Your task to perform on an android device: Clear the shopping cart on newegg.com. Add "beats solo 3" to the cart on newegg.com, then select checkout. Image 0: 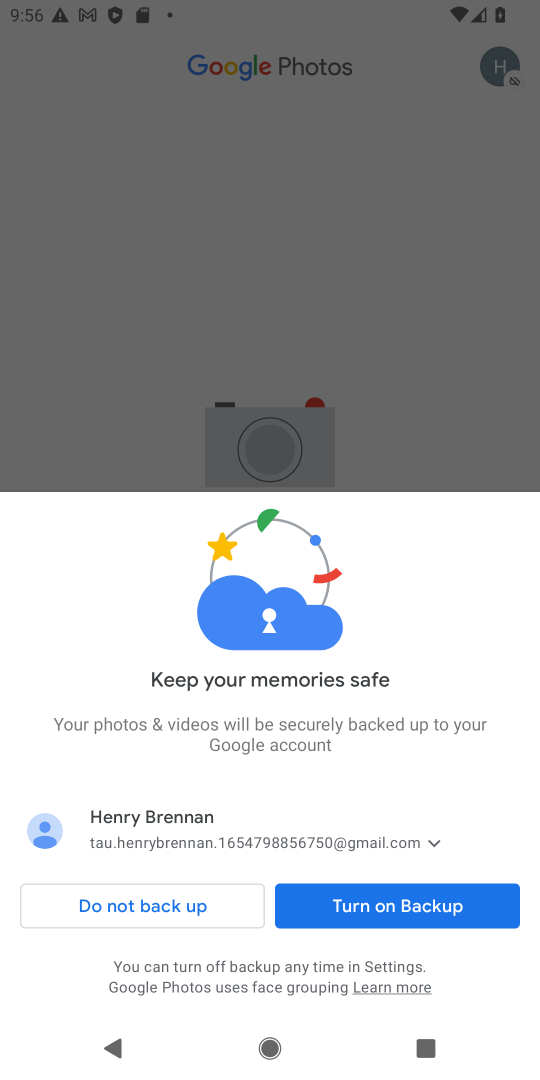
Step 0: press home button
Your task to perform on an android device: Clear the shopping cart on newegg.com. Add "beats solo 3" to the cart on newegg.com, then select checkout. Image 1: 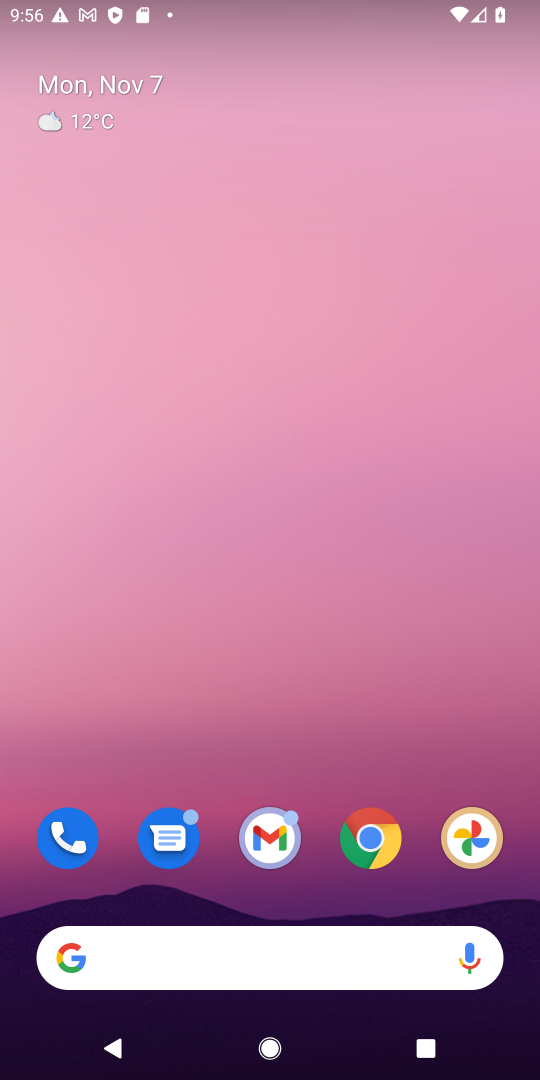
Step 1: click (357, 831)
Your task to perform on an android device: Clear the shopping cart on newegg.com. Add "beats solo 3" to the cart on newegg.com, then select checkout. Image 2: 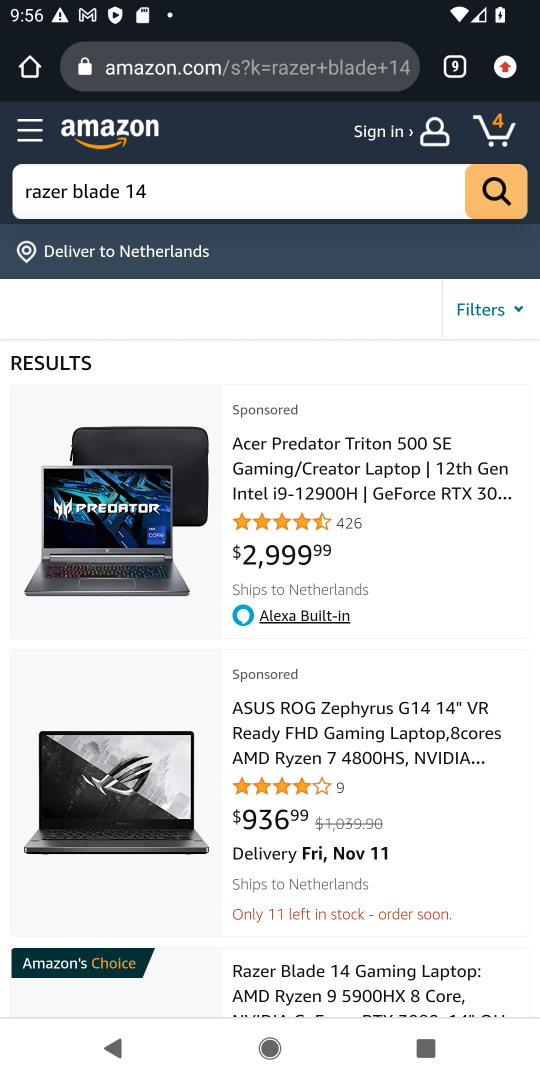
Step 2: click (460, 64)
Your task to perform on an android device: Clear the shopping cart on newegg.com. Add "beats solo 3" to the cart on newegg.com, then select checkout. Image 3: 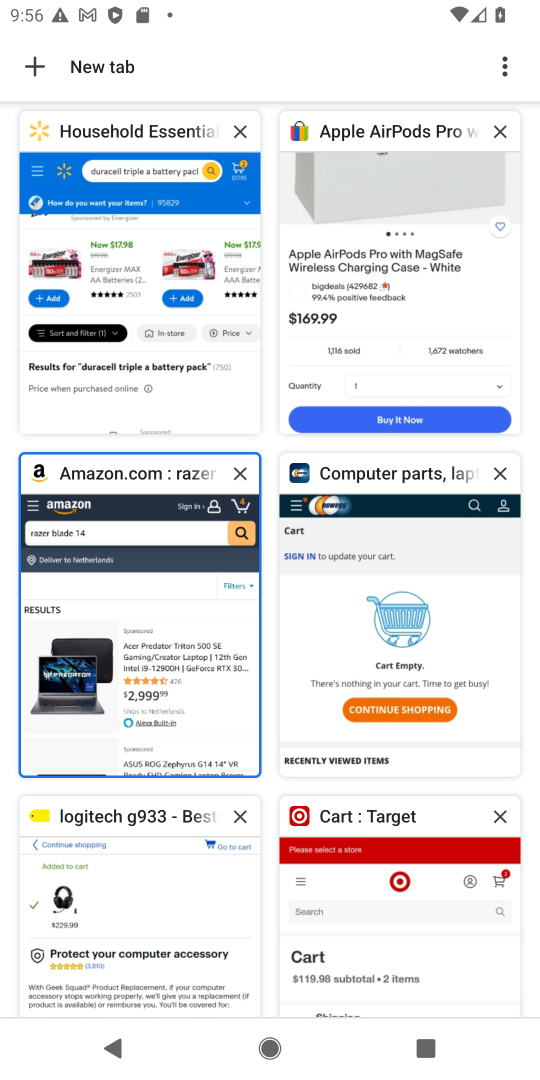
Step 3: click (355, 540)
Your task to perform on an android device: Clear the shopping cart on newegg.com. Add "beats solo 3" to the cart on newegg.com, then select checkout. Image 4: 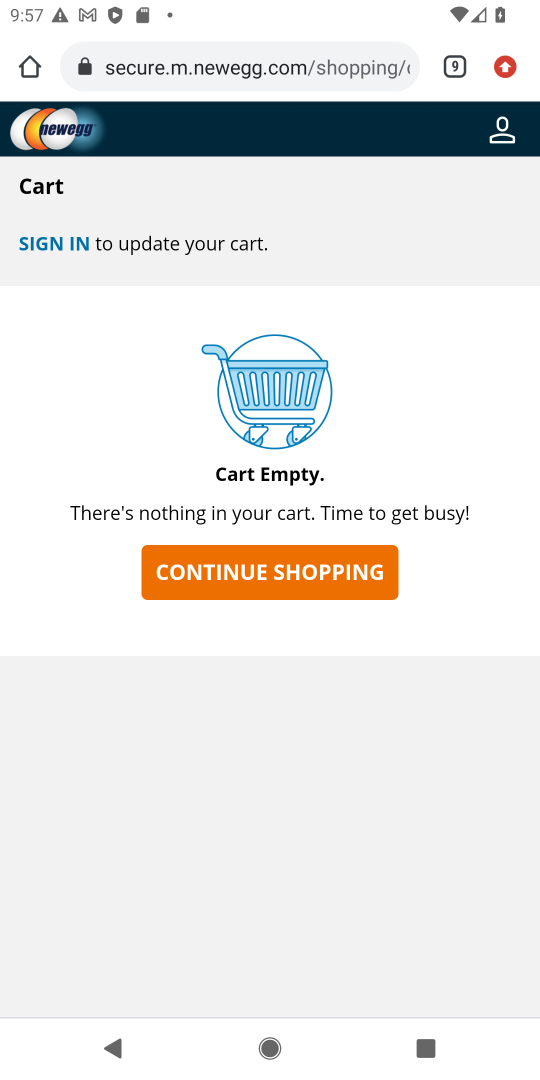
Step 4: click (321, 573)
Your task to perform on an android device: Clear the shopping cart on newegg.com. Add "beats solo 3" to the cart on newegg.com, then select checkout. Image 5: 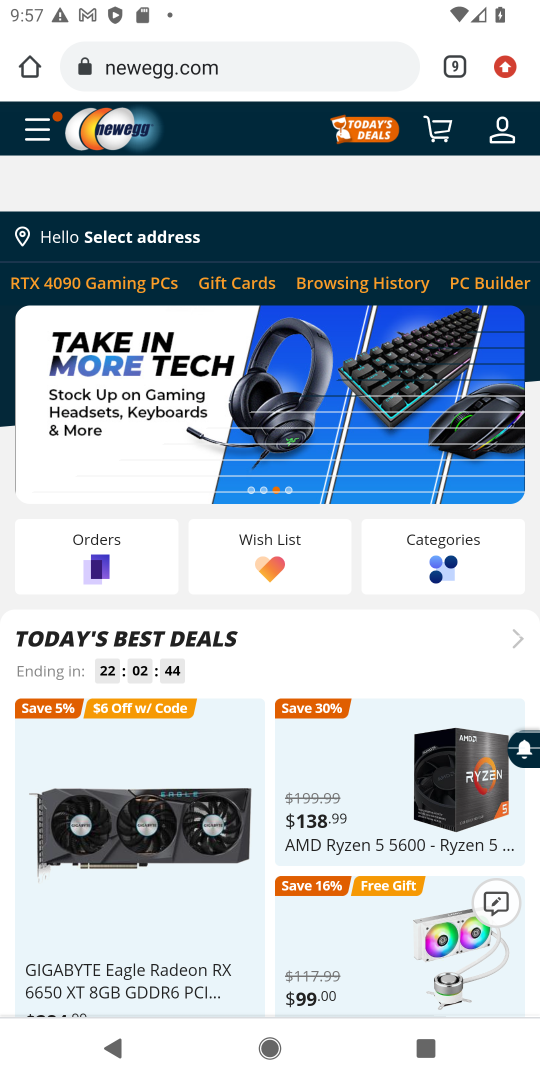
Step 5: click (146, 184)
Your task to perform on an android device: Clear the shopping cart on newegg.com. Add "beats solo 3" to the cart on newegg.com, then select checkout. Image 6: 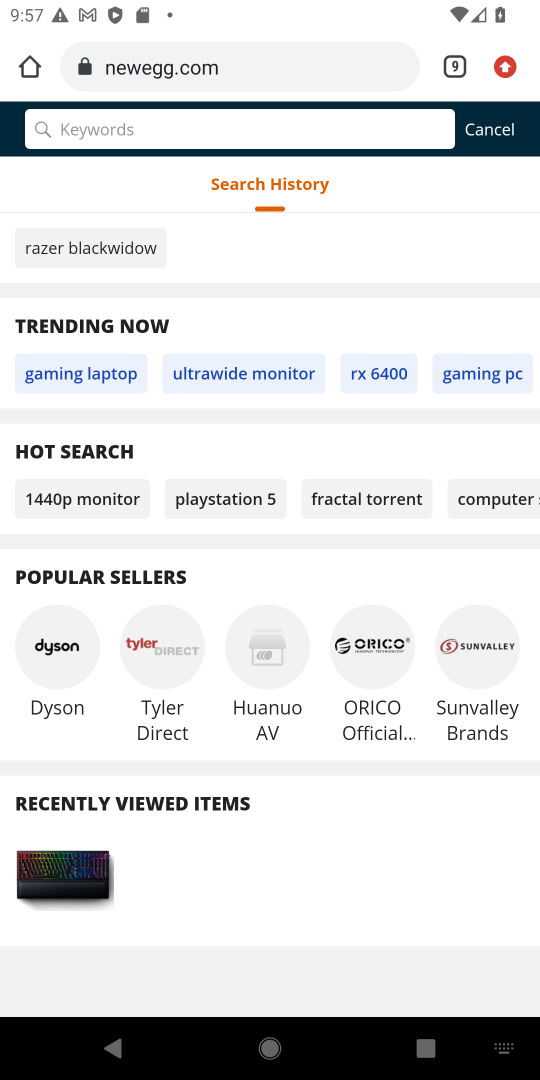
Step 6: type "beats solo 3"
Your task to perform on an android device: Clear the shopping cart on newegg.com. Add "beats solo 3" to the cart on newegg.com, then select checkout. Image 7: 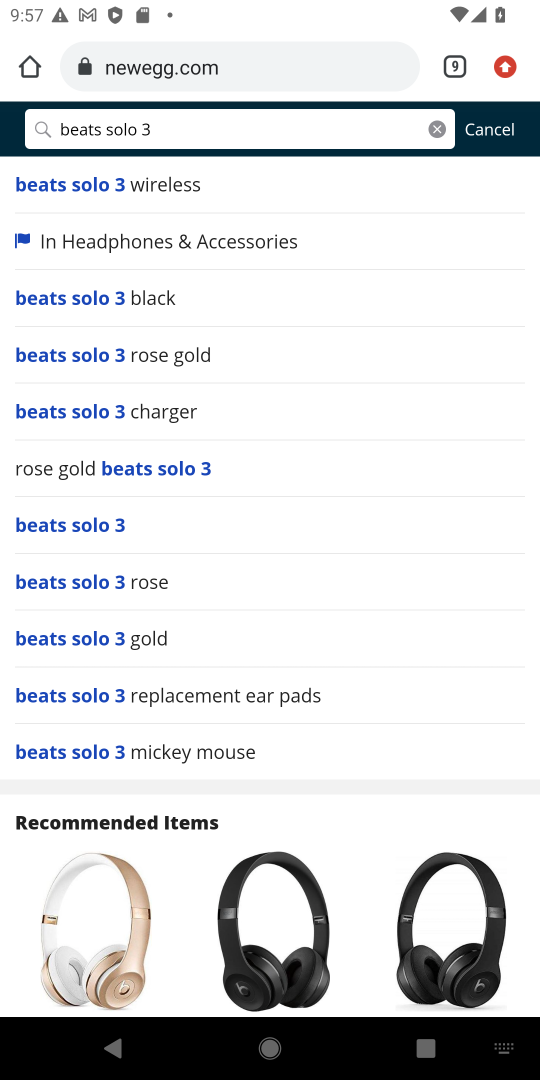
Step 7: click (63, 183)
Your task to perform on an android device: Clear the shopping cart on newegg.com. Add "beats solo 3" to the cart on newegg.com, then select checkout. Image 8: 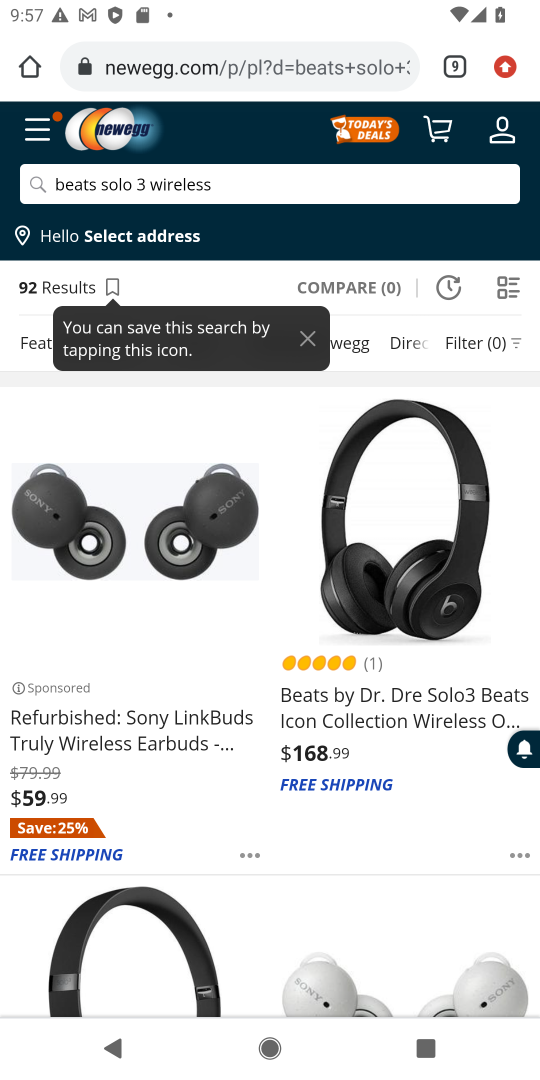
Step 8: click (380, 721)
Your task to perform on an android device: Clear the shopping cart on newegg.com. Add "beats solo 3" to the cart on newegg.com, then select checkout. Image 9: 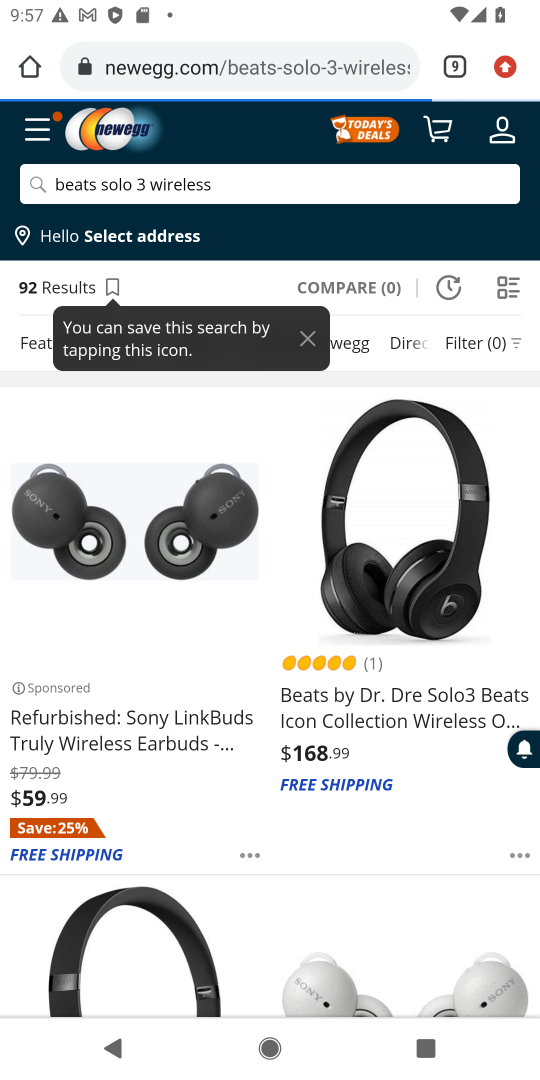
Step 9: click (380, 721)
Your task to perform on an android device: Clear the shopping cart on newegg.com. Add "beats solo 3" to the cart on newegg.com, then select checkout. Image 10: 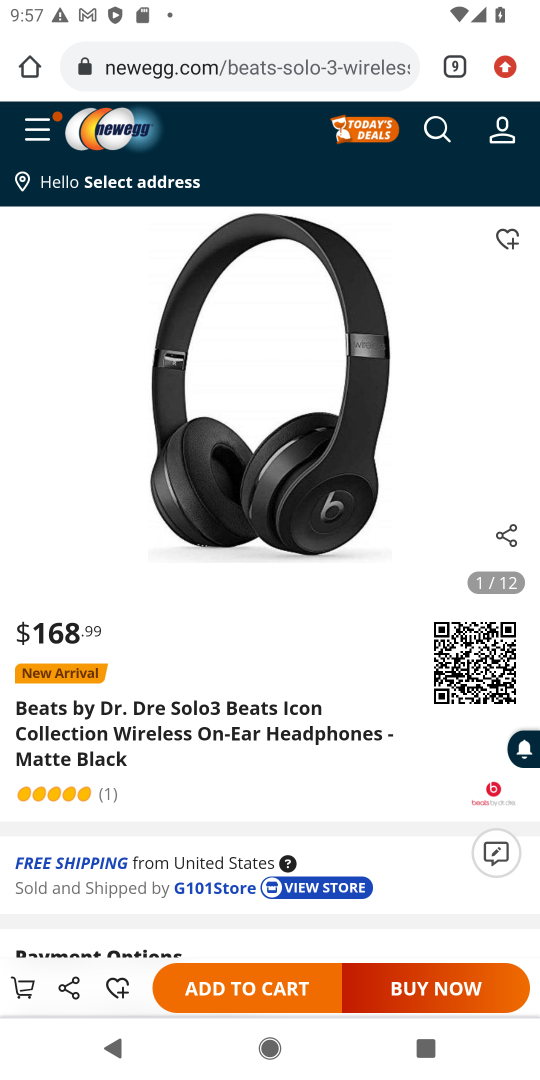
Step 10: click (262, 977)
Your task to perform on an android device: Clear the shopping cart on newegg.com. Add "beats solo 3" to the cart on newegg.com, then select checkout. Image 11: 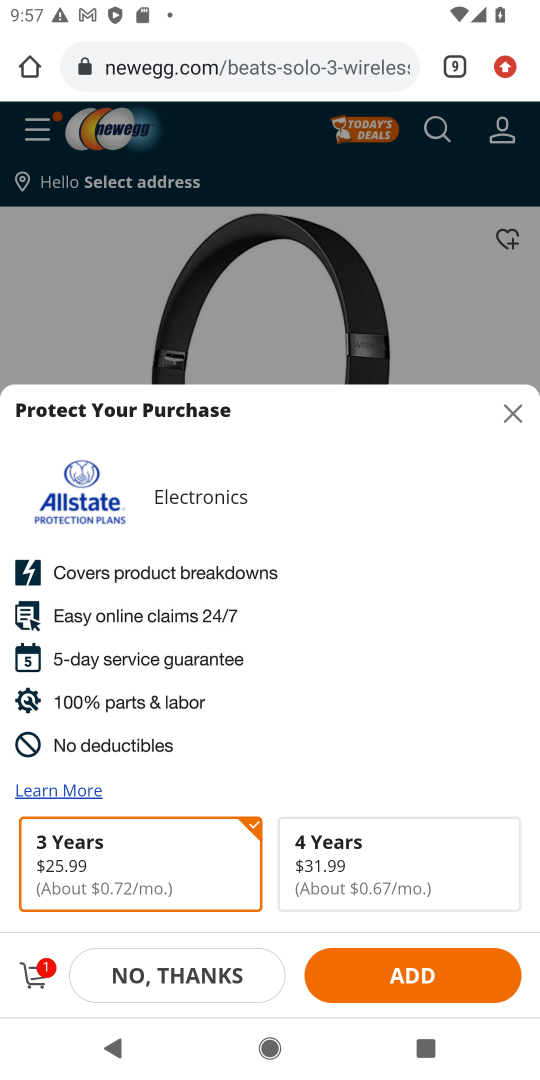
Step 11: click (46, 978)
Your task to perform on an android device: Clear the shopping cart on newegg.com. Add "beats solo 3" to the cart on newegg.com, then select checkout. Image 12: 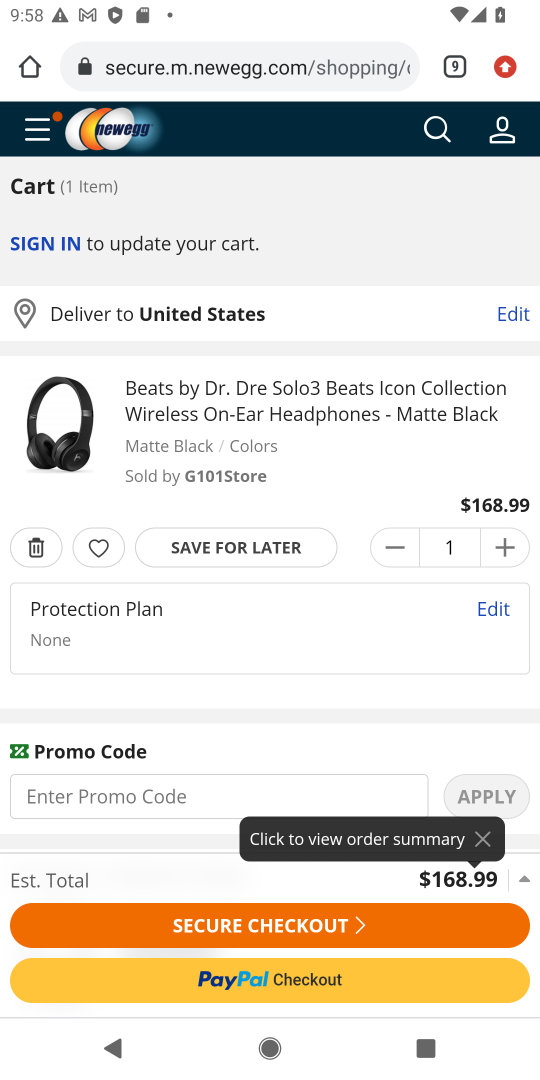
Step 12: click (237, 939)
Your task to perform on an android device: Clear the shopping cart on newegg.com. Add "beats solo 3" to the cart on newegg.com, then select checkout. Image 13: 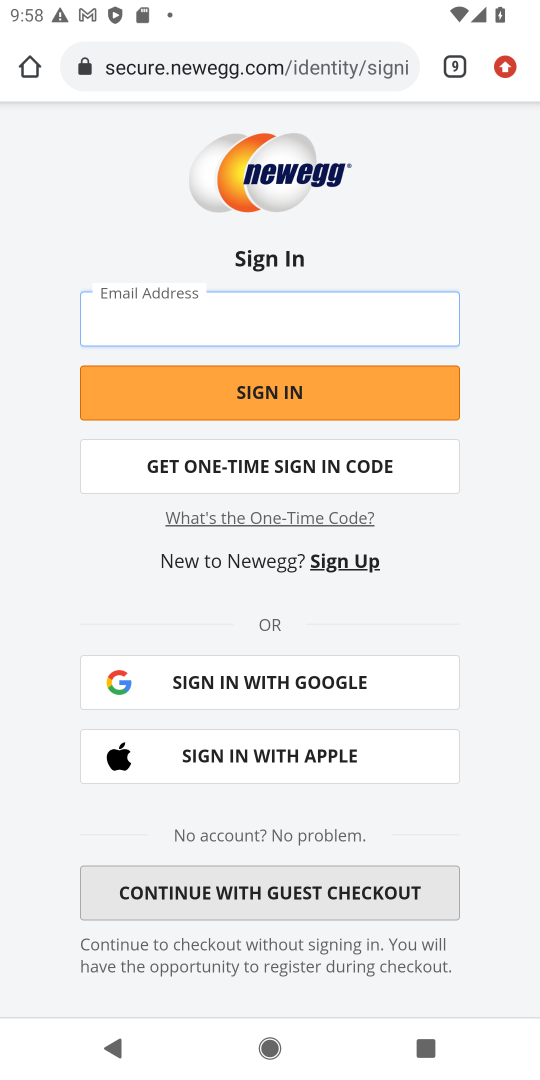
Step 13: task complete